Your task to perform on an android device: change the clock style Image 0: 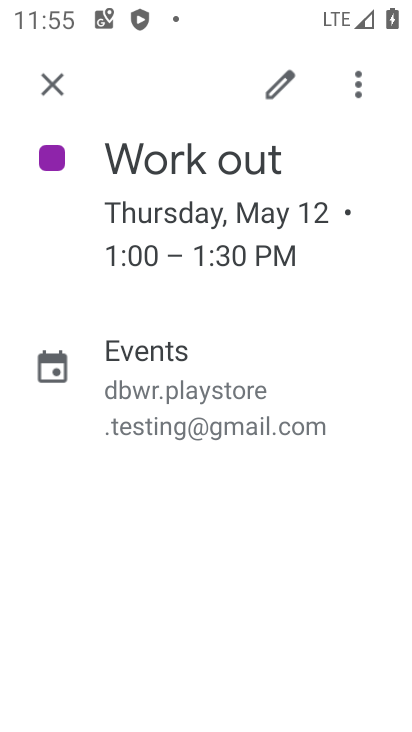
Step 0: press home button
Your task to perform on an android device: change the clock style Image 1: 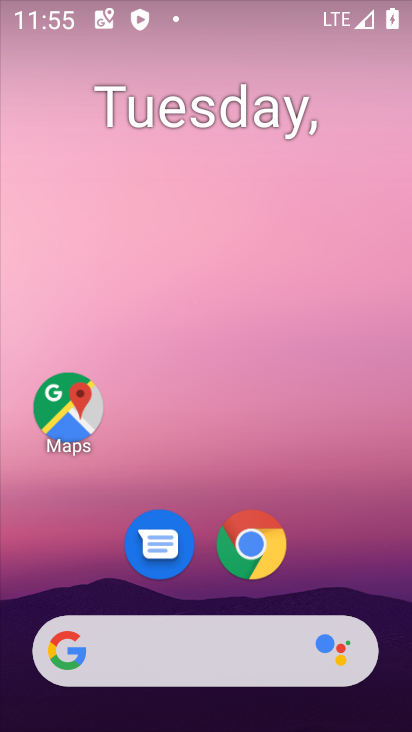
Step 1: drag from (385, 628) to (221, 95)
Your task to perform on an android device: change the clock style Image 2: 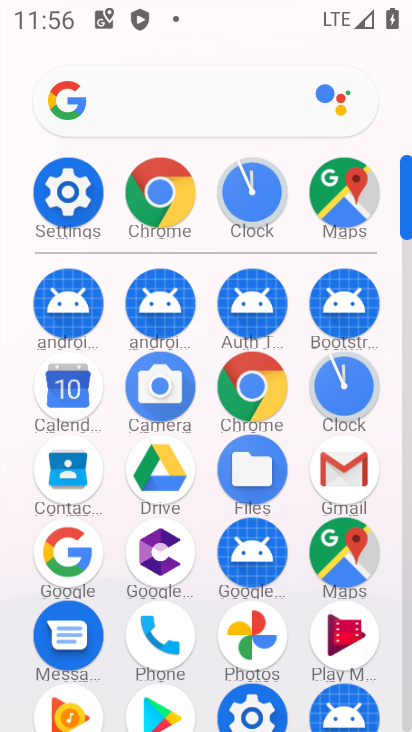
Step 2: click (345, 387)
Your task to perform on an android device: change the clock style Image 3: 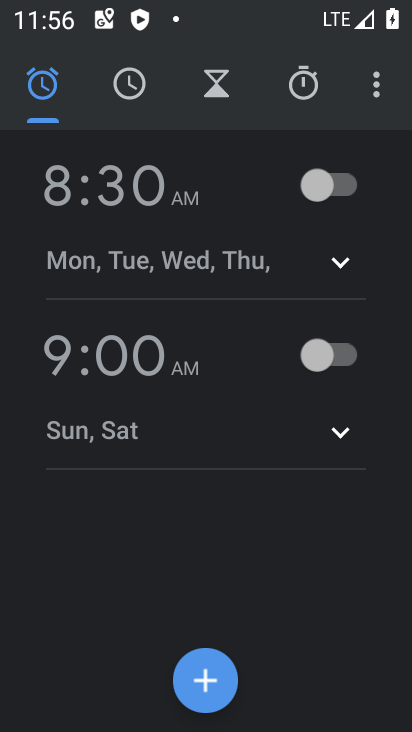
Step 3: click (376, 79)
Your task to perform on an android device: change the clock style Image 4: 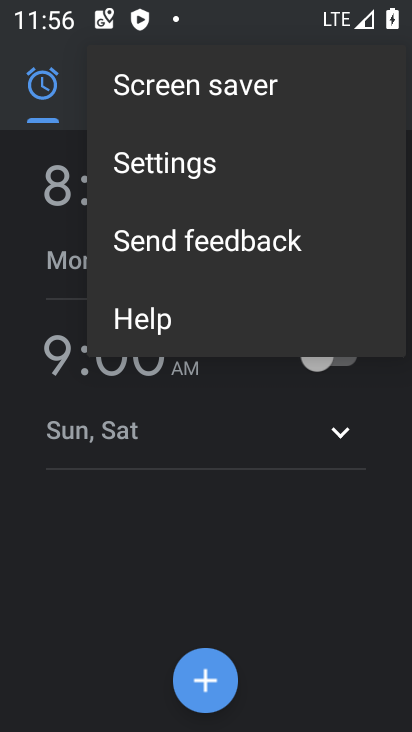
Step 4: click (230, 180)
Your task to perform on an android device: change the clock style Image 5: 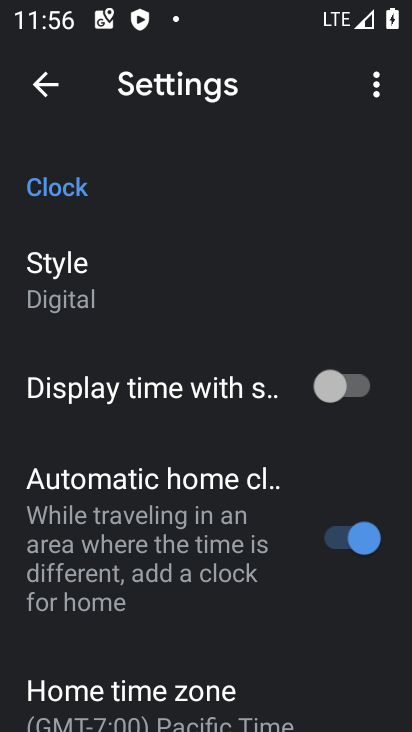
Step 5: click (148, 288)
Your task to perform on an android device: change the clock style Image 6: 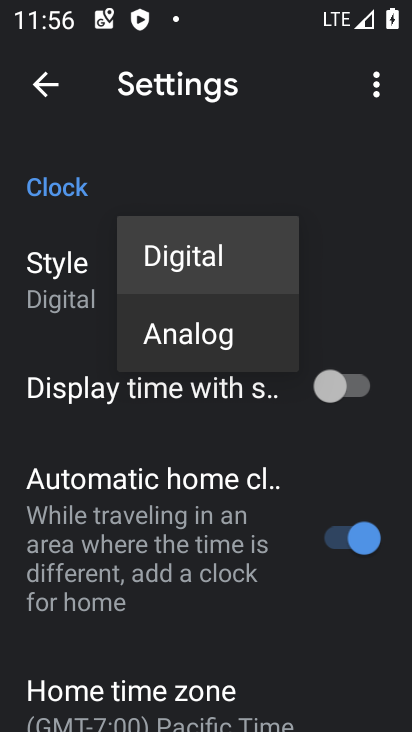
Step 6: click (216, 328)
Your task to perform on an android device: change the clock style Image 7: 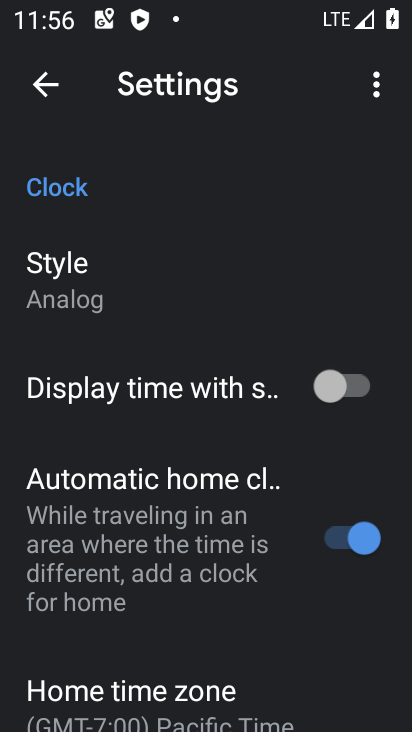
Step 7: task complete